Your task to perform on an android device: add a contact Image 0: 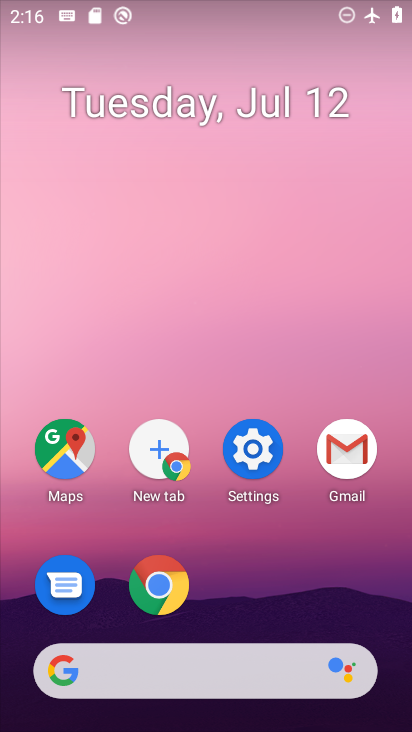
Step 0: drag from (161, 449) to (162, 70)
Your task to perform on an android device: add a contact Image 1: 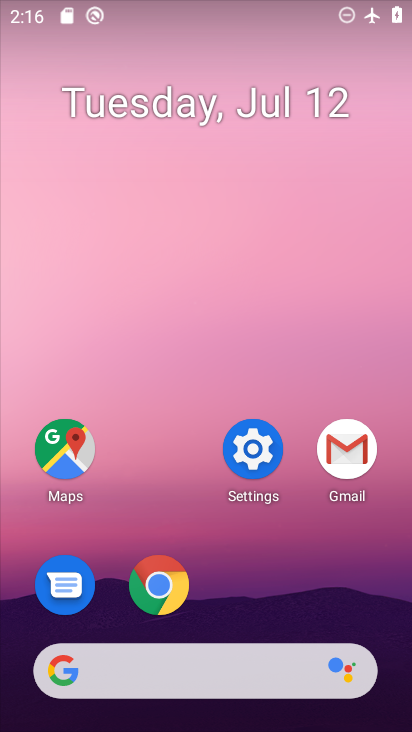
Step 1: drag from (394, 663) to (368, 92)
Your task to perform on an android device: add a contact Image 2: 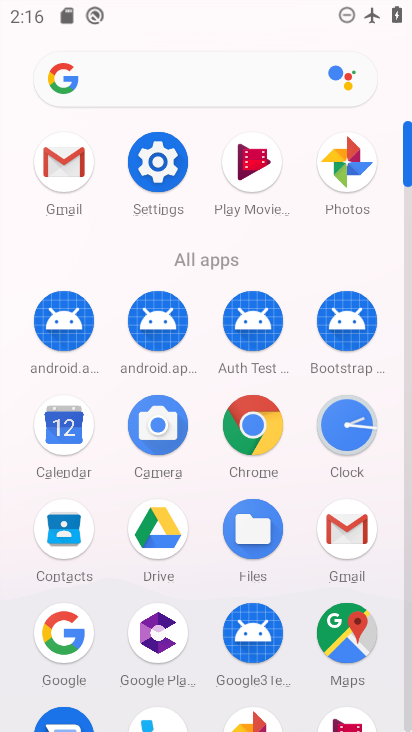
Step 2: click (69, 546)
Your task to perform on an android device: add a contact Image 3: 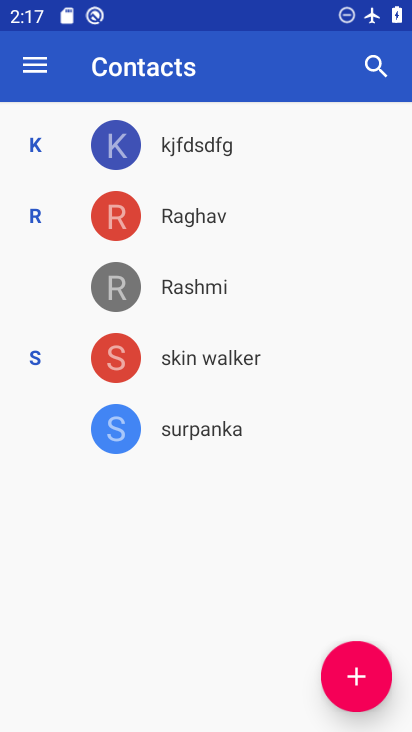
Step 3: click (362, 670)
Your task to perform on an android device: add a contact Image 4: 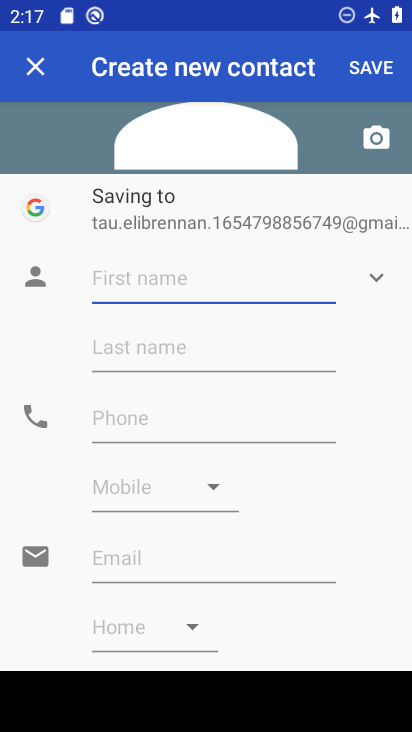
Step 4: type "osho Rajnish"
Your task to perform on an android device: add a contact Image 5: 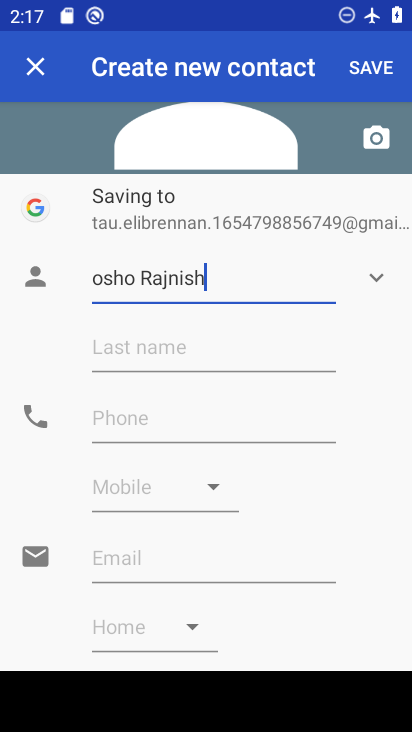
Step 5: click (181, 356)
Your task to perform on an android device: add a contact Image 6: 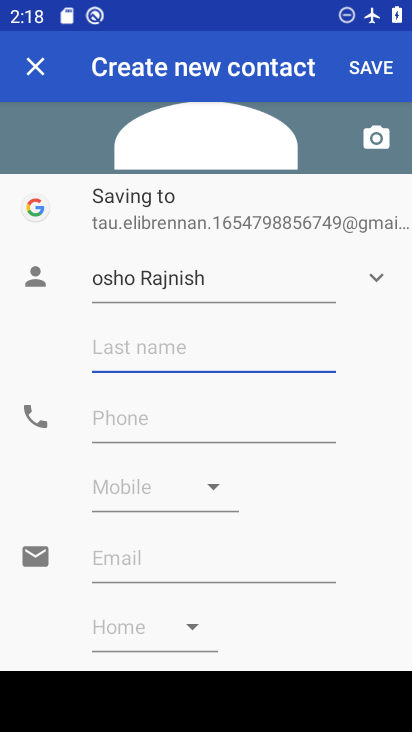
Step 6: type "Madhaypredesh"
Your task to perform on an android device: add a contact Image 7: 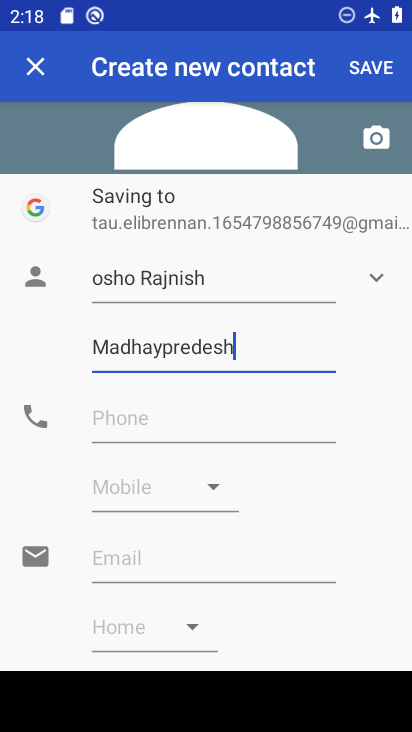
Step 7: click (177, 428)
Your task to perform on an android device: add a contact Image 8: 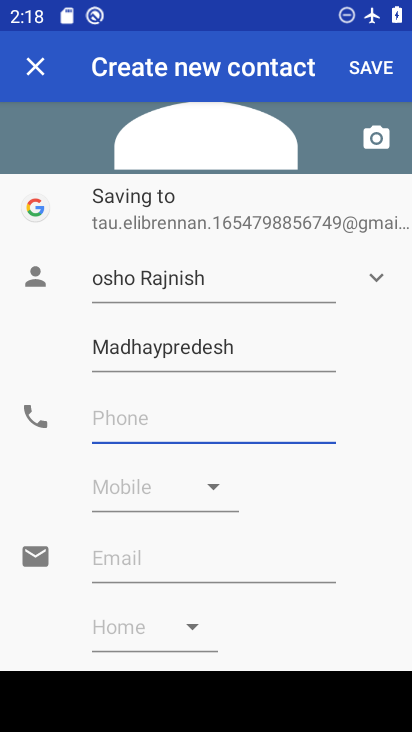
Step 8: type "9988776655"
Your task to perform on an android device: add a contact Image 9: 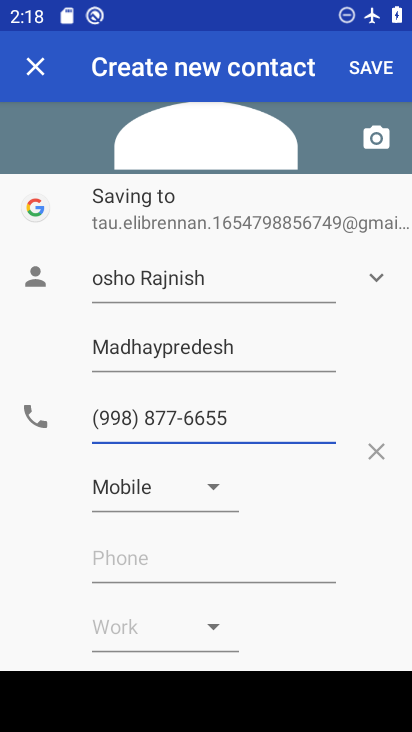
Step 9: click (213, 487)
Your task to perform on an android device: add a contact Image 10: 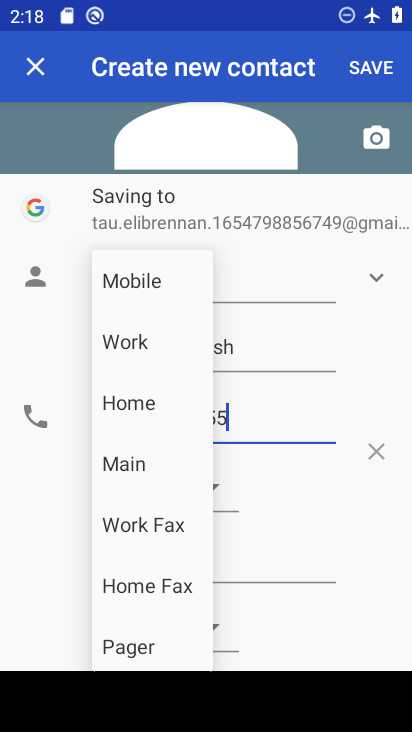
Step 10: drag from (155, 630) to (161, 292)
Your task to perform on an android device: add a contact Image 11: 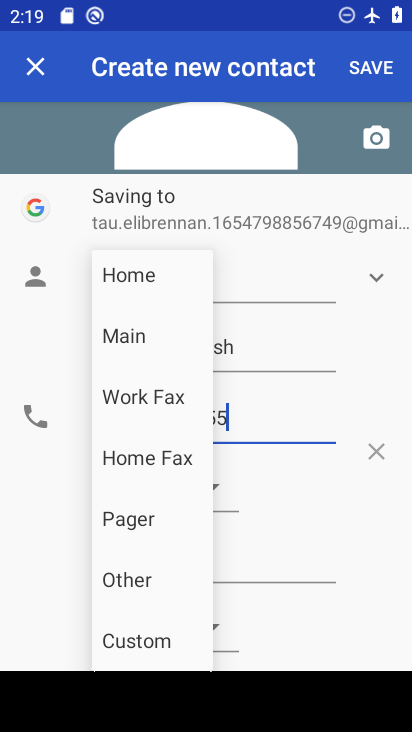
Step 11: drag from (159, 635) to (171, 320)
Your task to perform on an android device: add a contact Image 12: 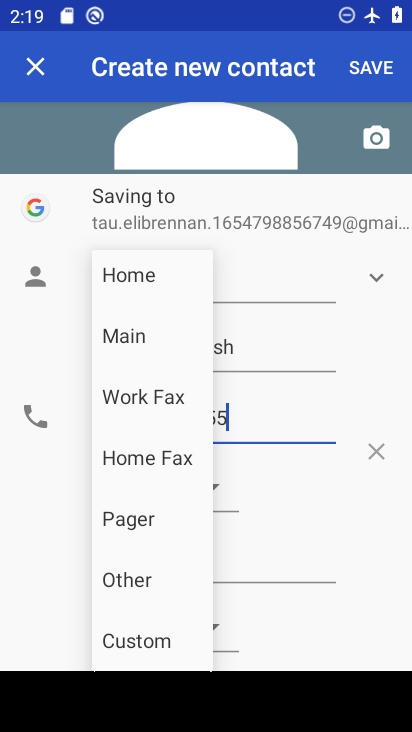
Step 12: drag from (171, 376) to (174, 648)
Your task to perform on an android device: add a contact Image 13: 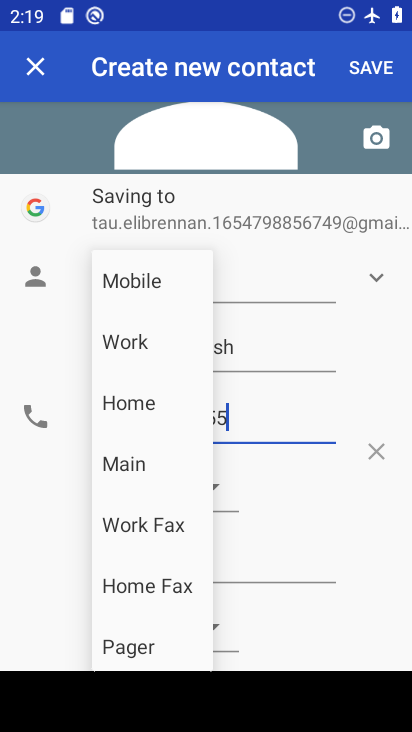
Step 13: click (130, 271)
Your task to perform on an android device: add a contact Image 14: 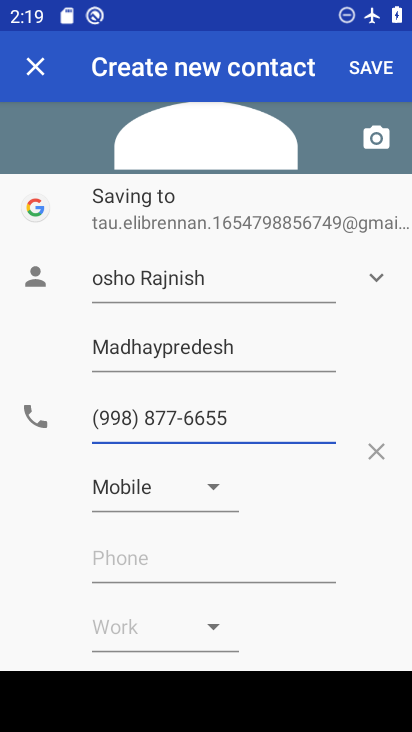
Step 14: click (381, 61)
Your task to perform on an android device: add a contact Image 15: 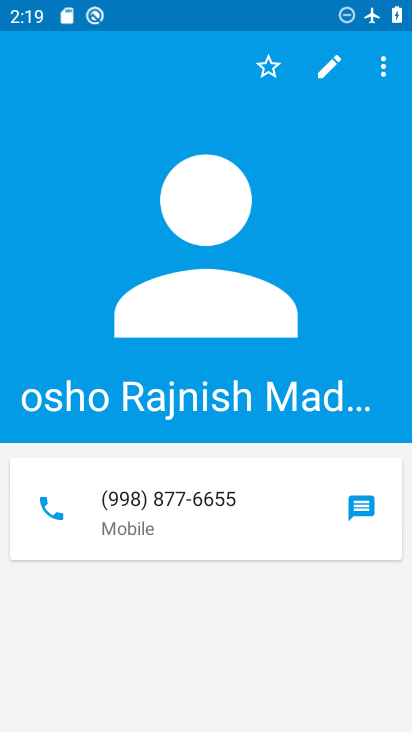
Step 15: task complete